Your task to perform on an android device: turn on data saver in the chrome app Image 0: 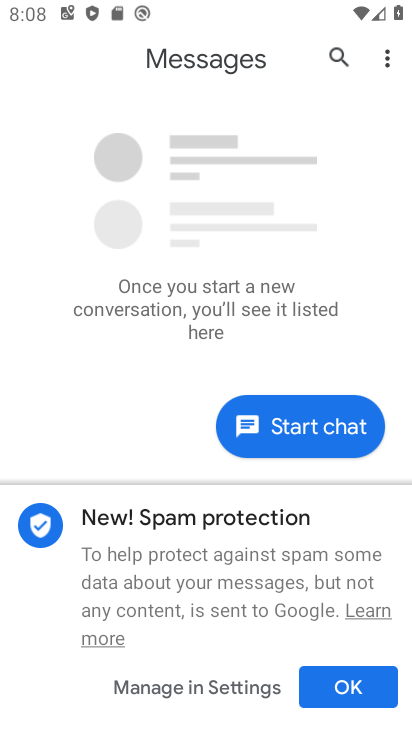
Step 0: press back button
Your task to perform on an android device: turn on data saver in the chrome app Image 1: 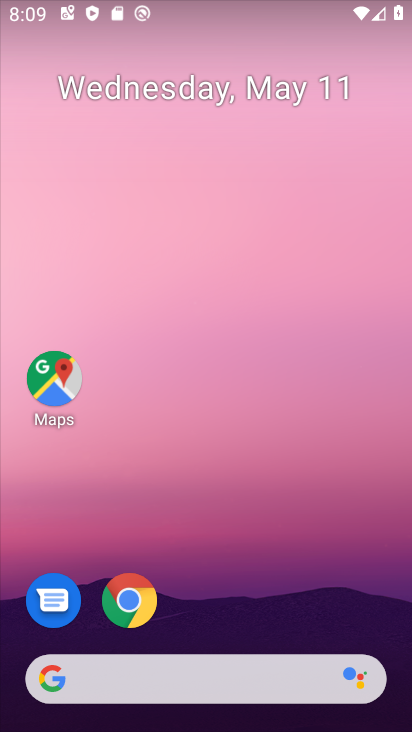
Step 1: click (128, 601)
Your task to perform on an android device: turn on data saver in the chrome app Image 2: 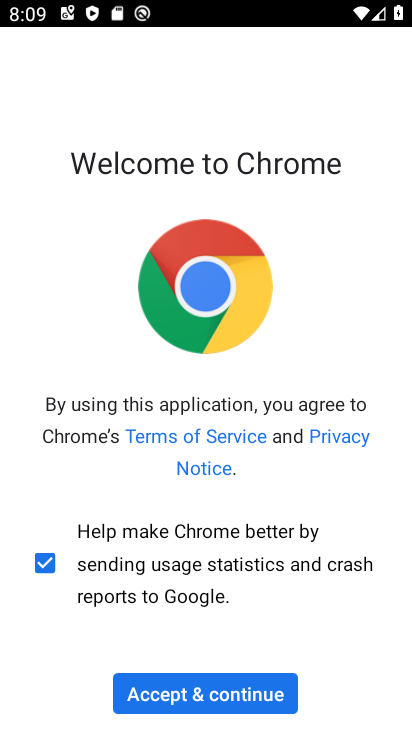
Step 2: click (205, 691)
Your task to perform on an android device: turn on data saver in the chrome app Image 3: 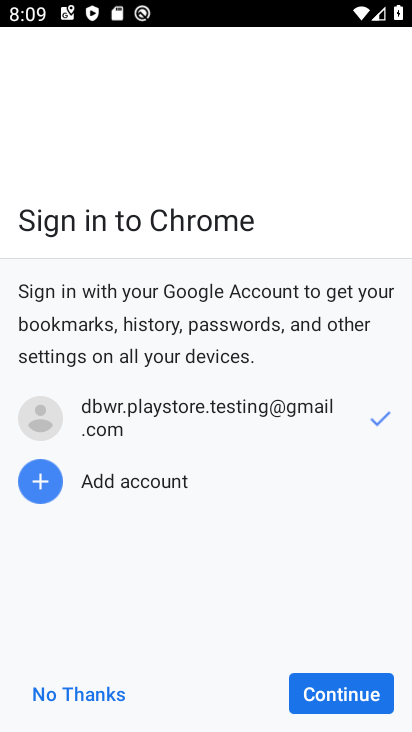
Step 3: click (323, 693)
Your task to perform on an android device: turn on data saver in the chrome app Image 4: 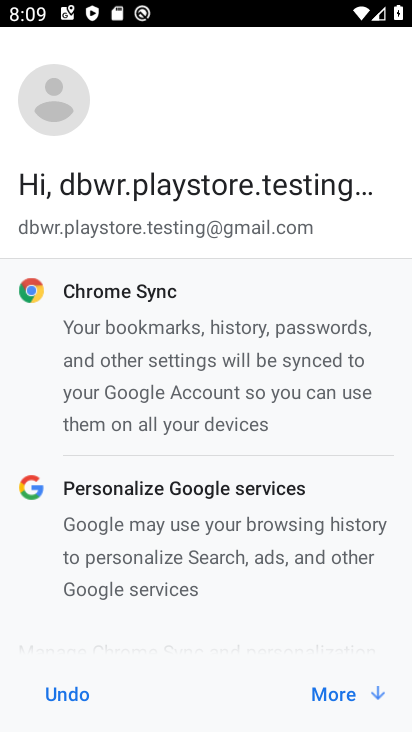
Step 4: click (323, 693)
Your task to perform on an android device: turn on data saver in the chrome app Image 5: 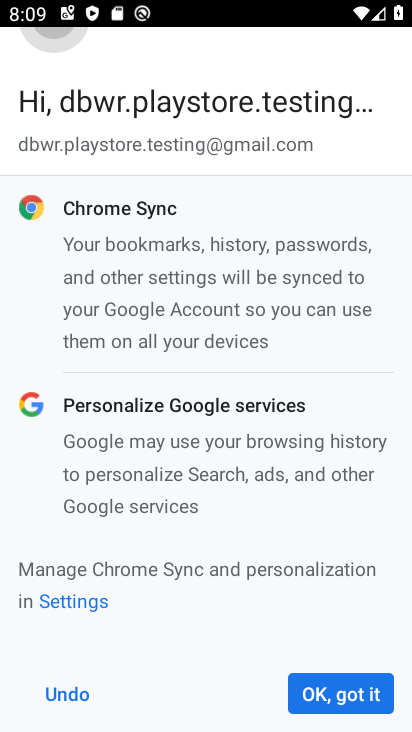
Step 5: click (323, 693)
Your task to perform on an android device: turn on data saver in the chrome app Image 6: 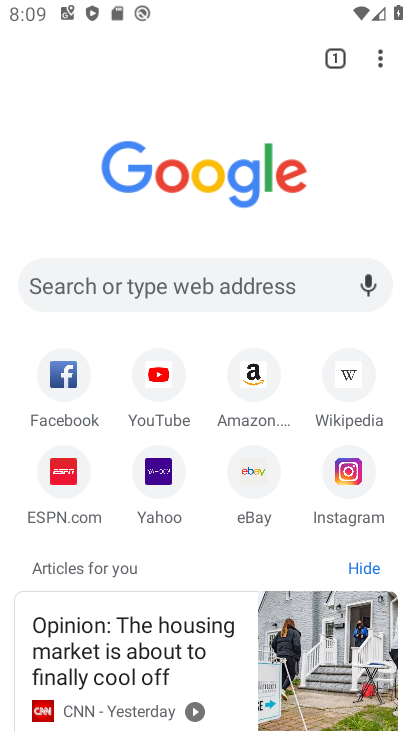
Step 6: click (379, 57)
Your task to perform on an android device: turn on data saver in the chrome app Image 7: 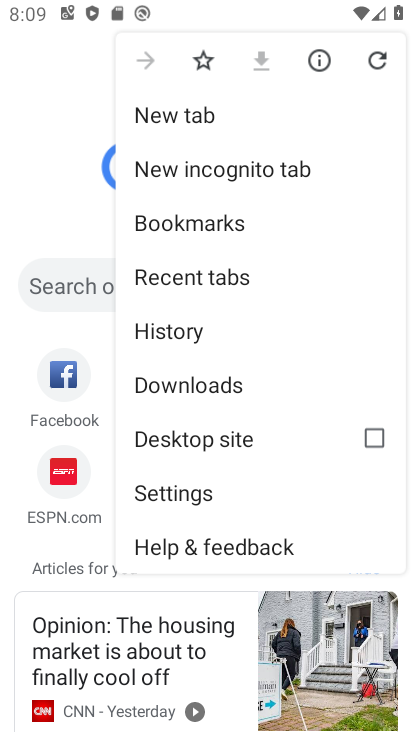
Step 7: click (184, 494)
Your task to perform on an android device: turn on data saver in the chrome app Image 8: 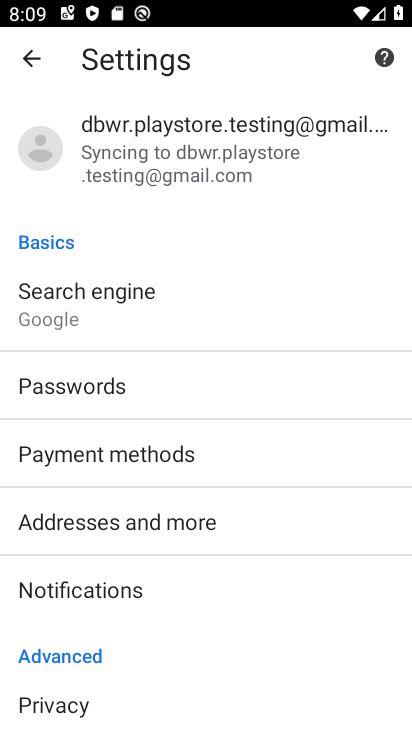
Step 8: drag from (147, 625) to (256, 420)
Your task to perform on an android device: turn on data saver in the chrome app Image 9: 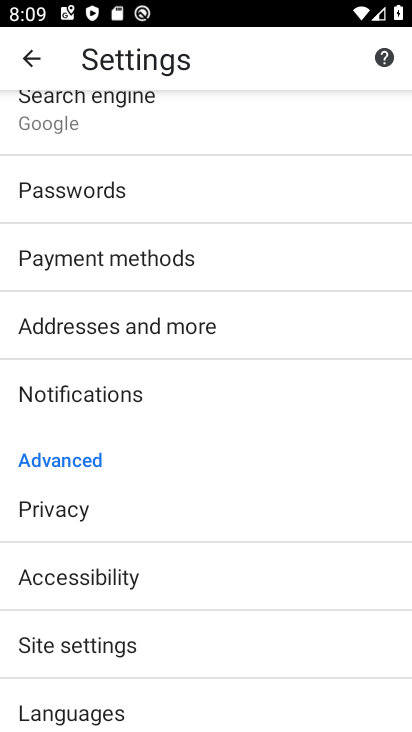
Step 9: drag from (170, 585) to (267, 468)
Your task to perform on an android device: turn on data saver in the chrome app Image 10: 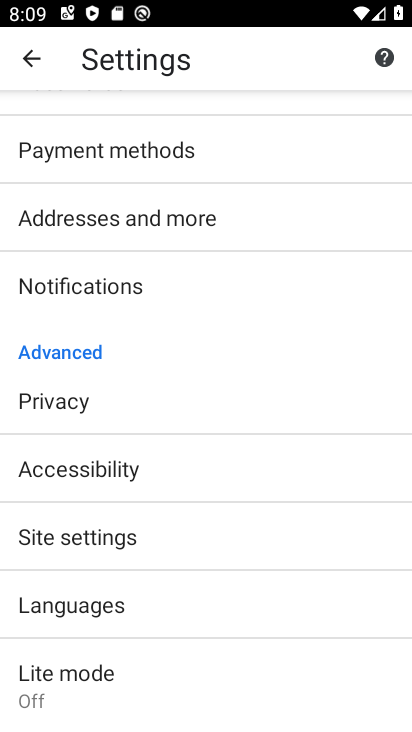
Step 10: drag from (174, 587) to (270, 463)
Your task to perform on an android device: turn on data saver in the chrome app Image 11: 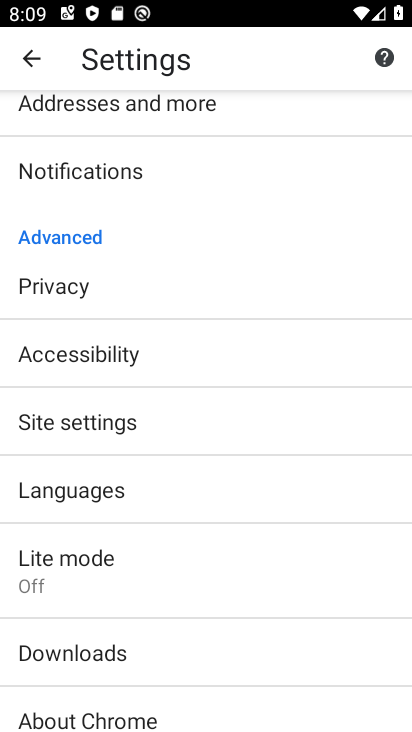
Step 11: click (97, 555)
Your task to perform on an android device: turn on data saver in the chrome app Image 12: 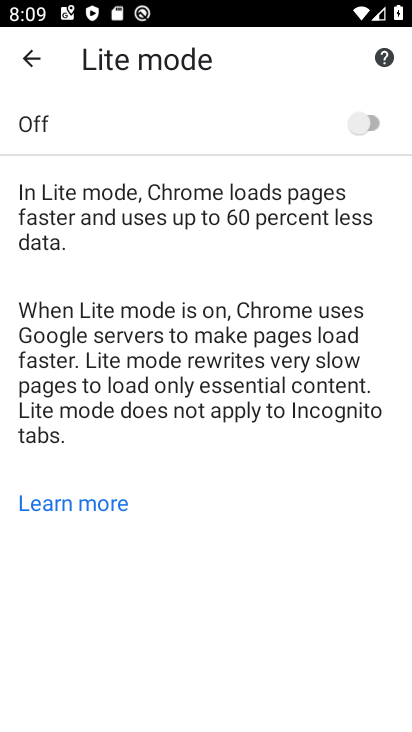
Step 12: click (372, 114)
Your task to perform on an android device: turn on data saver in the chrome app Image 13: 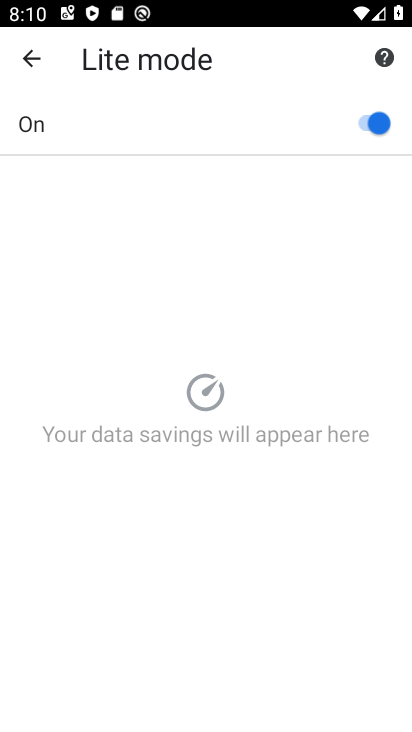
Step 13: task complete